Your task to perform on an android device: toggle javascript in the chrome app Image 0: 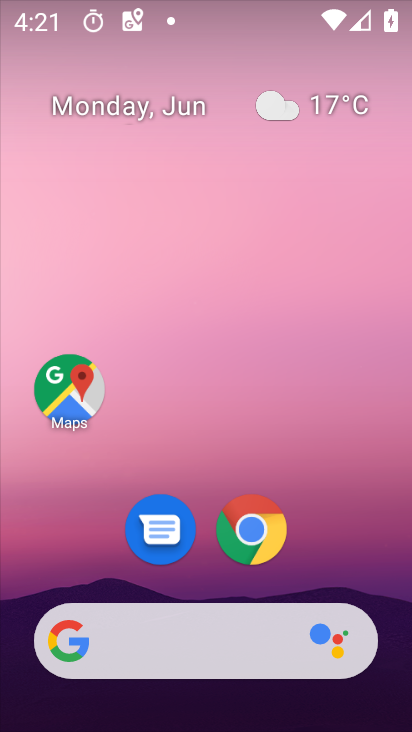
Step 0: press home button
Your task to perform on an android device: toggle javascript in the chrome app Image 1: 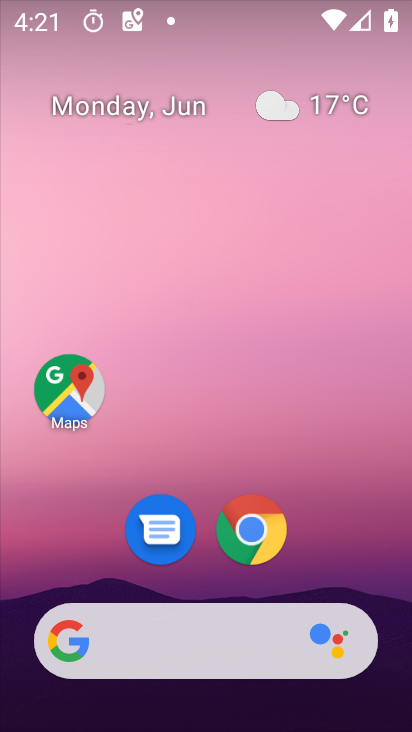
Step 1: click (253, 533)
Your task to perform on an android device: toggle javascript in the chrome app Image 2: 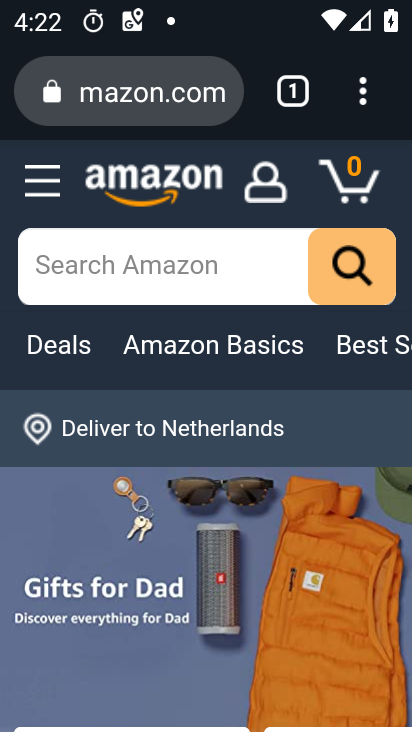
Step 2: click (358, 99)
Your task to perform on an android device: toggle javascript in the chrome app Image 3: 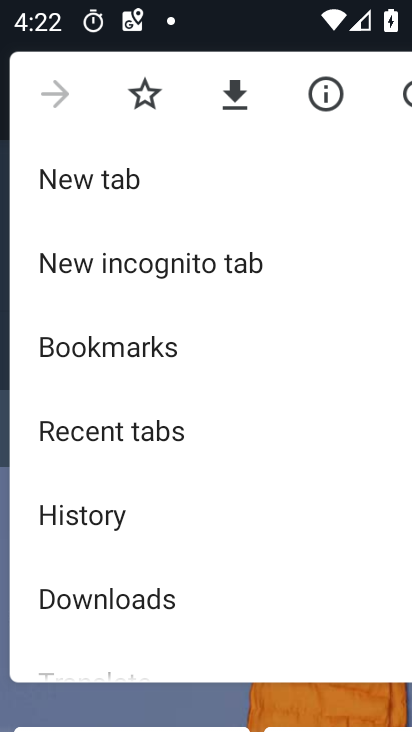
Step 3: drag from (160, 539) to (265, 169)
Your task to perform on an android device: toggle javascript in the chrome app Image 4: 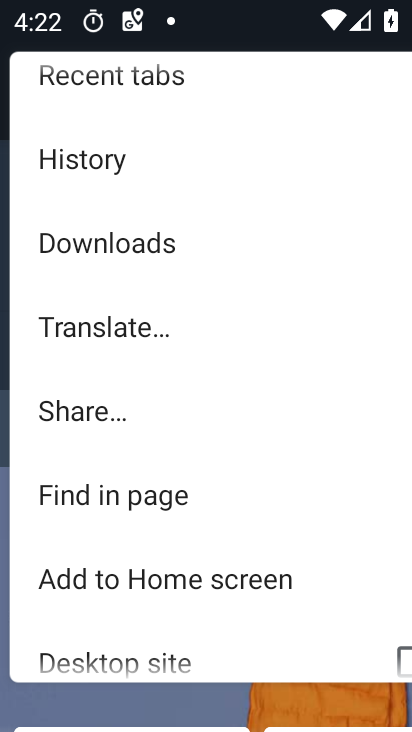
Step 4: drag from (162, 530) to (285, 260)
Your task to perform on an android device: toggle javascript in the chrome app Image 5: 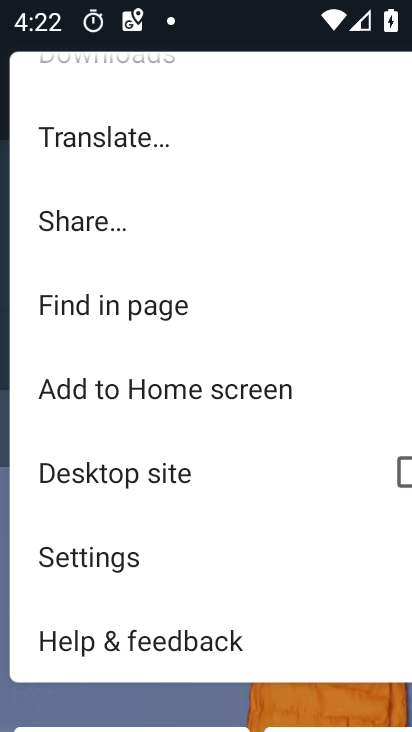
Step 5: click (146, 560)
Your task to perform on an android device: toggle javascript in the chrome app Image 6: 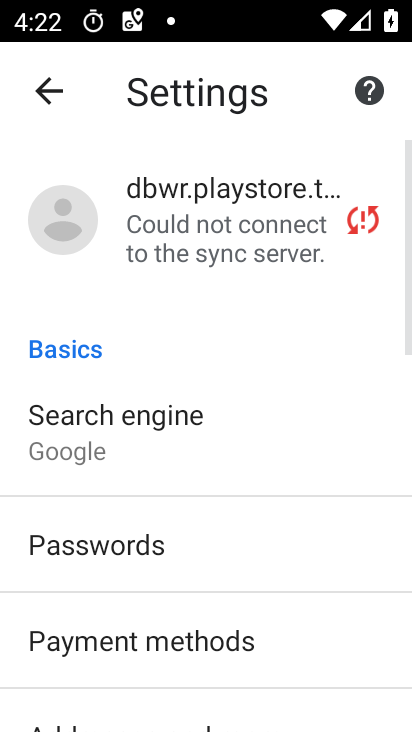
Step 6: drag from (158, 598) to (287, 283)
Your task to perform on an android device: toggle javascript in the chrome app Image 7: 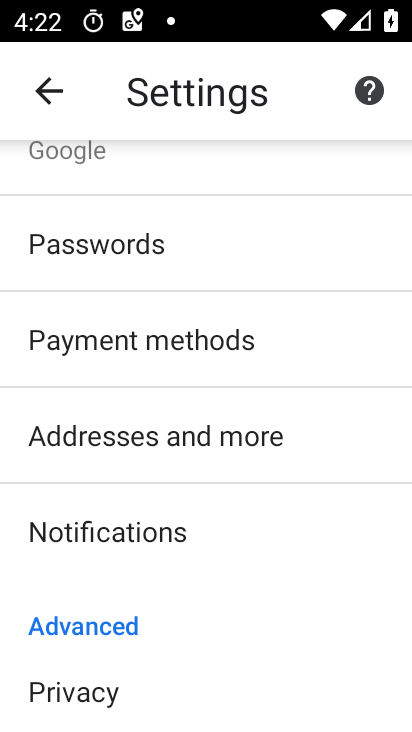
Step 7: drag from (159, 609) to (286, 341)
Your task to perform on an android device: toggle javascript in the chrome app Image 8: 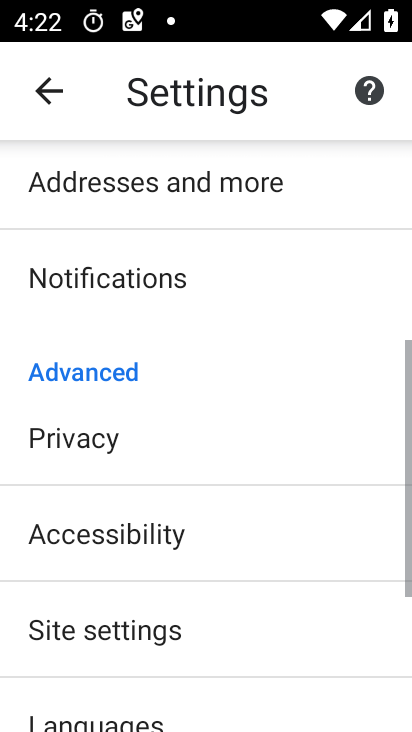
Step 8: drag from (186, 633) to (281, 409)
Your task to perform on an android device: toggle javascript in the chrome app Image 9: 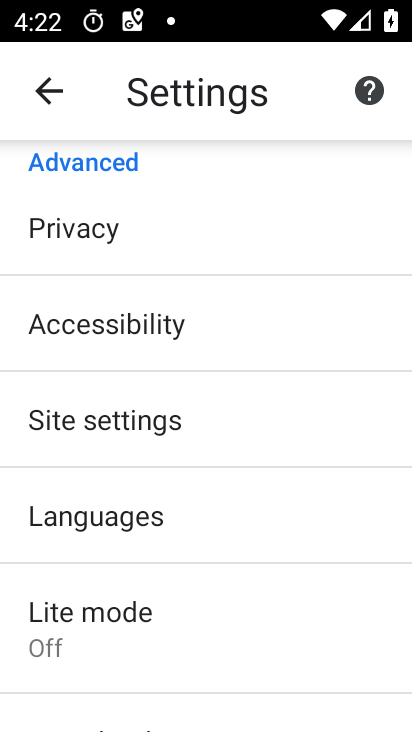
Step 9: click (152, 425)
Your task to perform on an android device: toggle javascript in the chrome app Image 10: 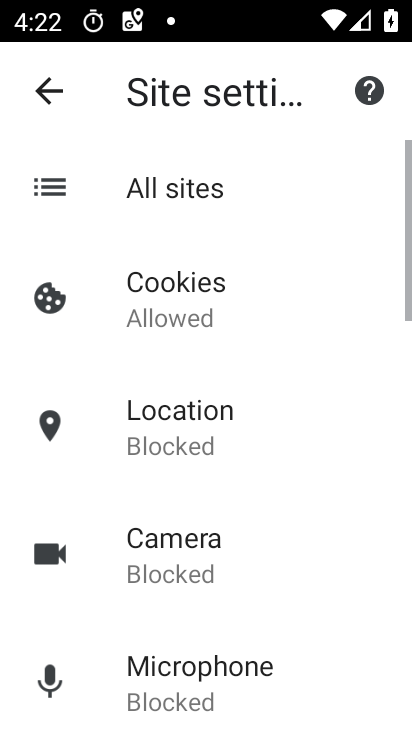
Step 10: drag from (209, 651) to (319, 332)
Your task to perform on an android device: toggle javascript in the chrome app Image 11: 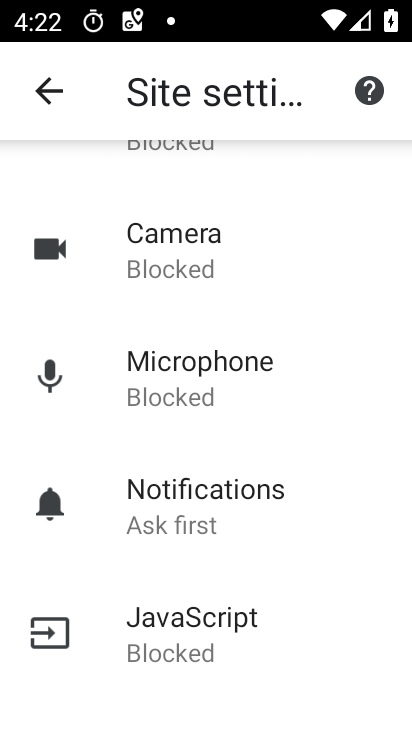
Step 11: click (214, 635)
Your task to perform on an android device: toggle javascript in the chrome app Image 12: 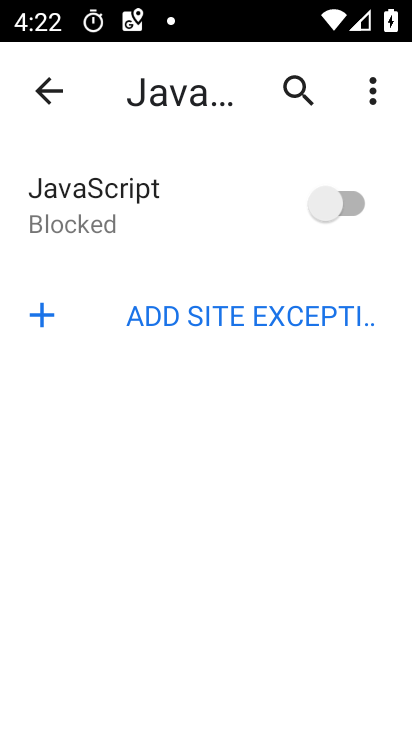
Step 12: click (325, 209)
Your task to perform on an android device: toggle javascript in the chrome app Image 13: 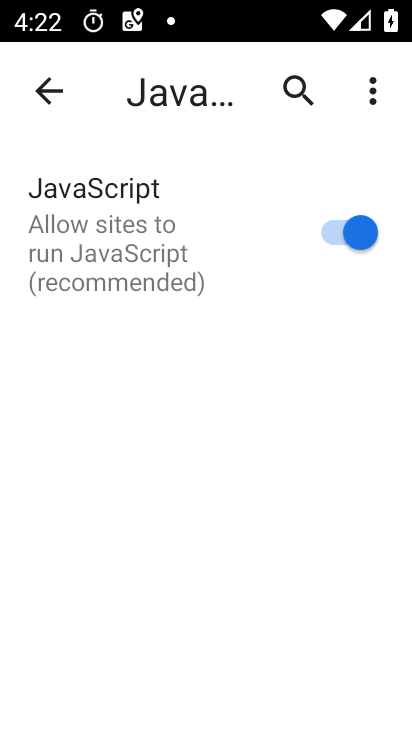
Step 13: task complete